Your task to perform on an android device: Show me the alarms in the clock app Image 0: 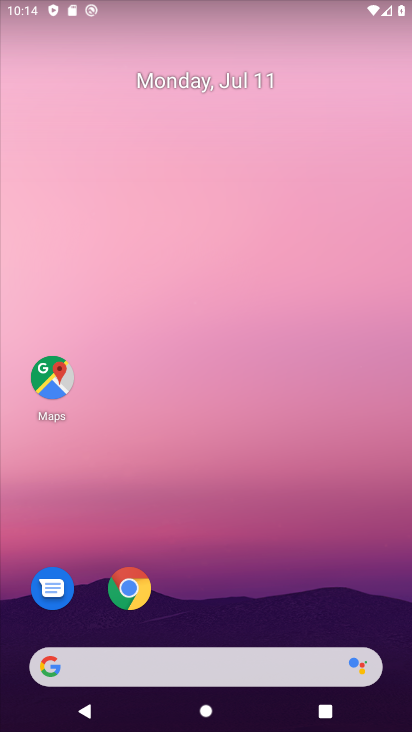
Step 0: drag from (246, 614) to (217, 117)
Your task to perform on an android device: Show me the alarms in the clock app Image 1: 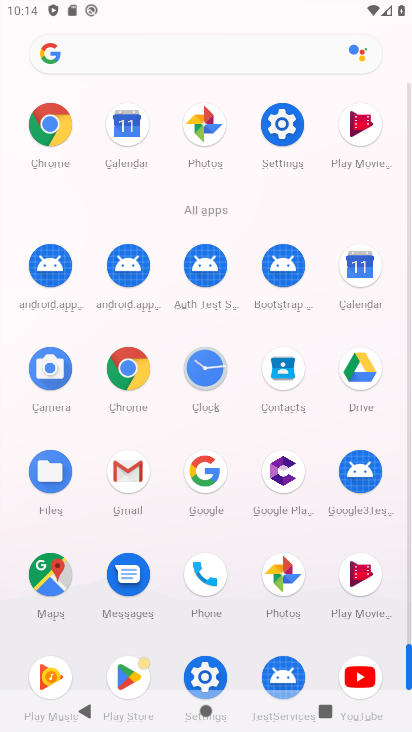
Step 1: click (207, 370)
Your task to perform on an android device: Show me the alarms in the clock app Image 2: 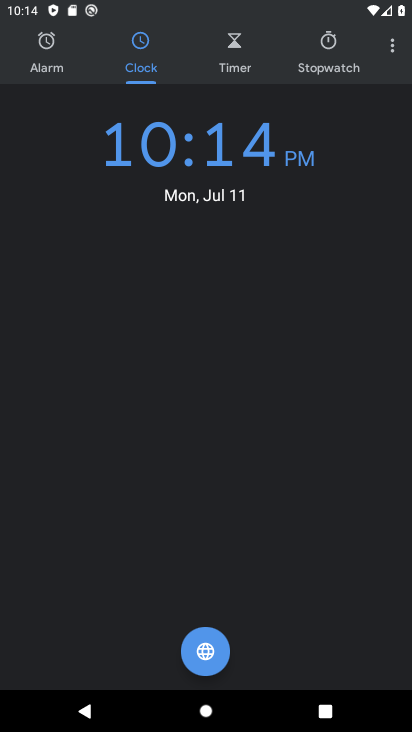
Step 2: click (45, 42)
Your task to perform on an android device: Show me the alarms in the clock app Image 3: 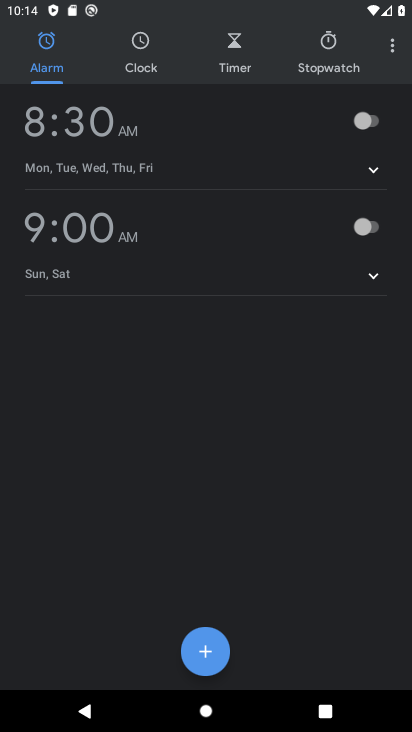
Step 3: task complete